Your task to perform on an android device: Turn on the flashlight Image 0: 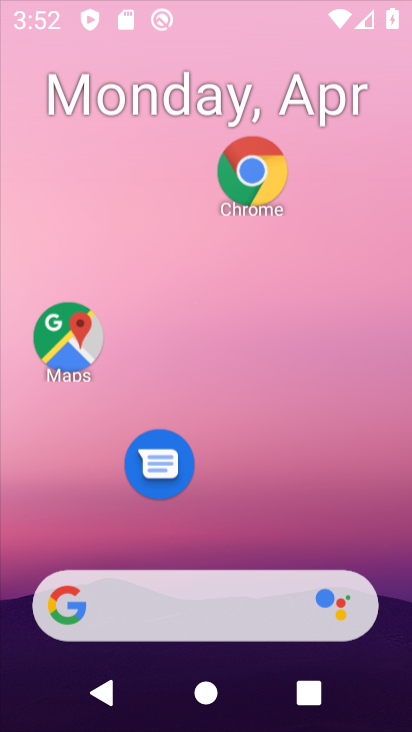
Step 0: drag from (342, 487) to (270, 146)
Your task to perform on an android device: Turn on the flashlight Image 1: 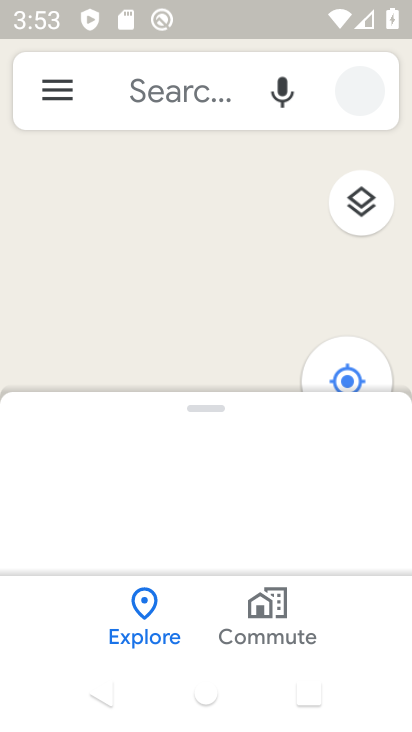
Step 1: press home button
Your task to perform on an android device: Turn on the flashlight Image 2: 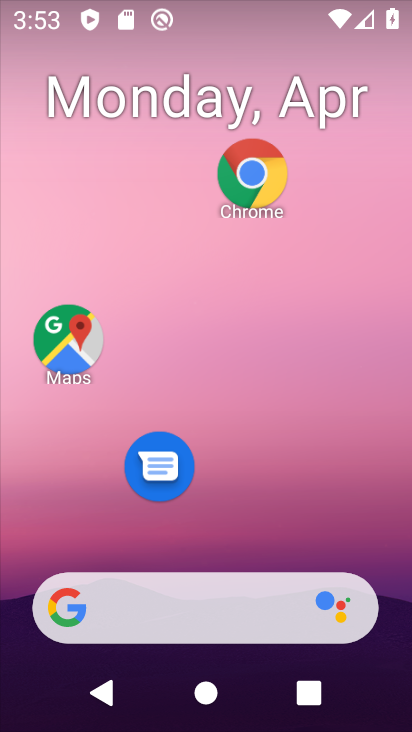
Step 2: drag from (297, 10) to (359, 436)
Your task to perform on an android device: Turn on the flashlight Image 3: 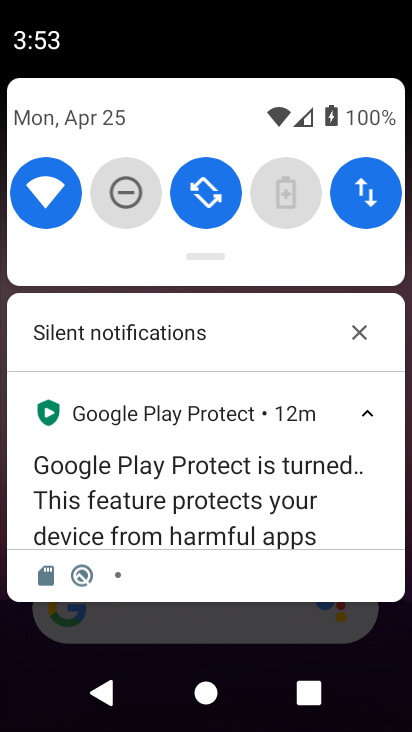
Step 3: drag from (249, 239) to (265, 432)
Your task to perform on an android device: Turn on the flashlight Image 4: 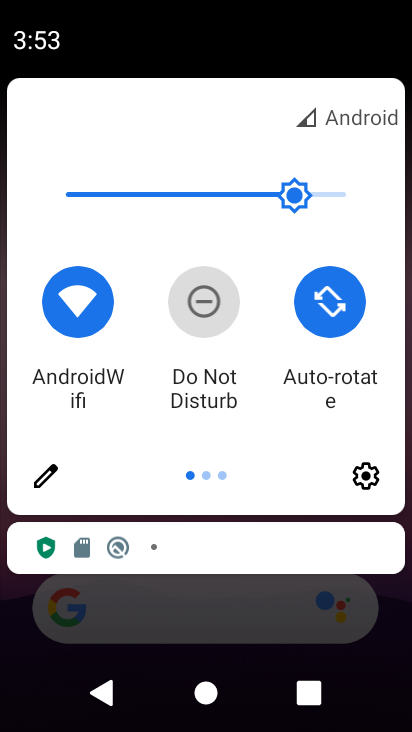
Step 4: drag from (345, 436) to (70, 429)
Your task to perform on an android device: Turn on the flashlight Image 5: 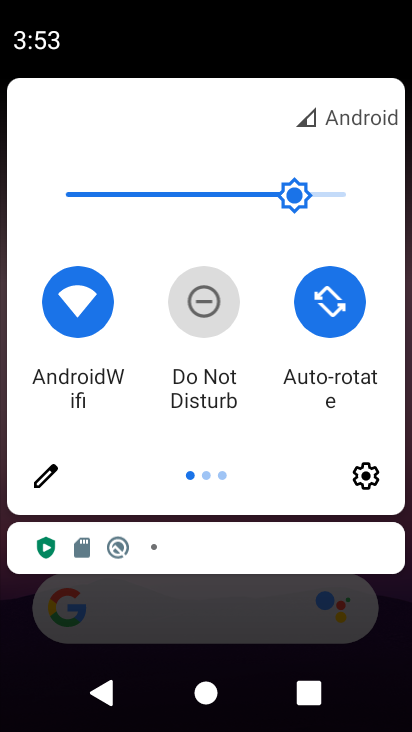
Step 5: drag from (313, 455) to (144, 444)
Your task to perform on an android device: Turn on the flashlight Image 6: 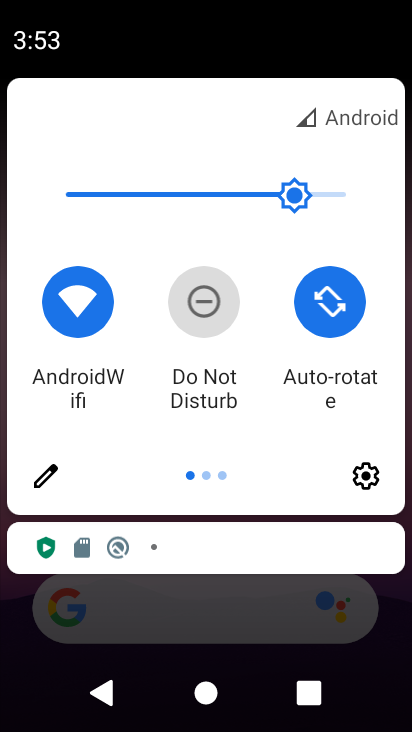
Step 6: drag from (392, 345) to (76, 305)
Your task to perform on an android device: Turn on the flashlight Image 7: 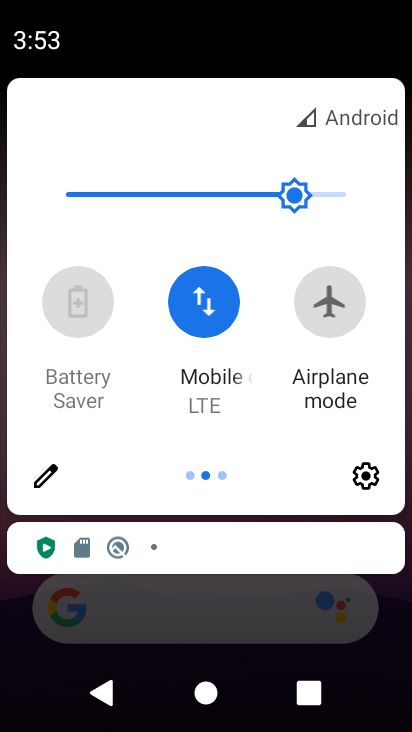
Step 7: drag from (391, 340) to (25, 314)
Your task to perform on an android device: Turn on the flashlight Image 8: 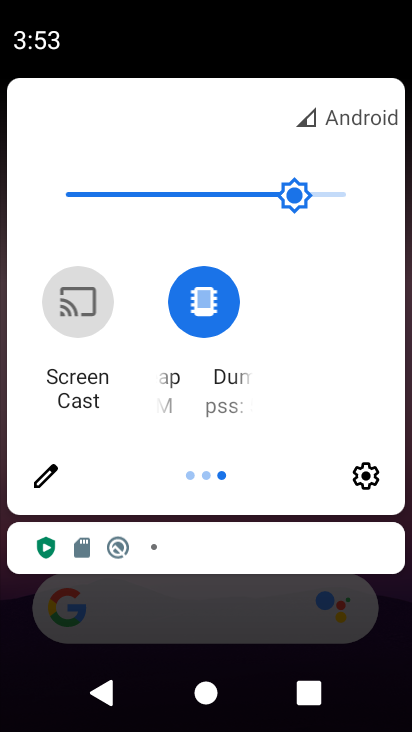
Step 8: click (50, 472)
Your task to perform on an android device: Turn on the flashlight Image 9: 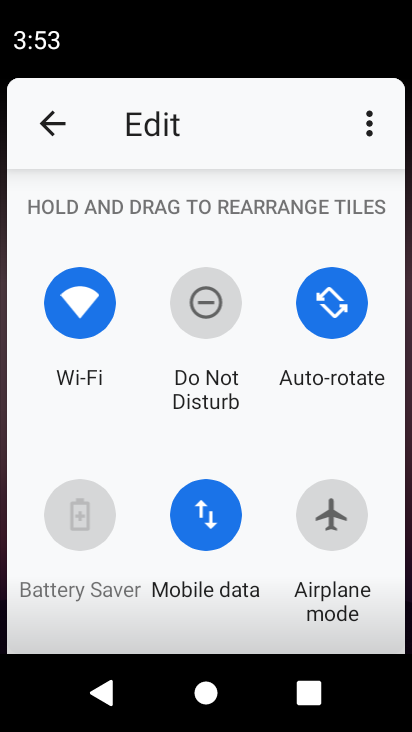
Step 9: task complete